Your task to perform on an android device: Go to ESPN.com Image 0: 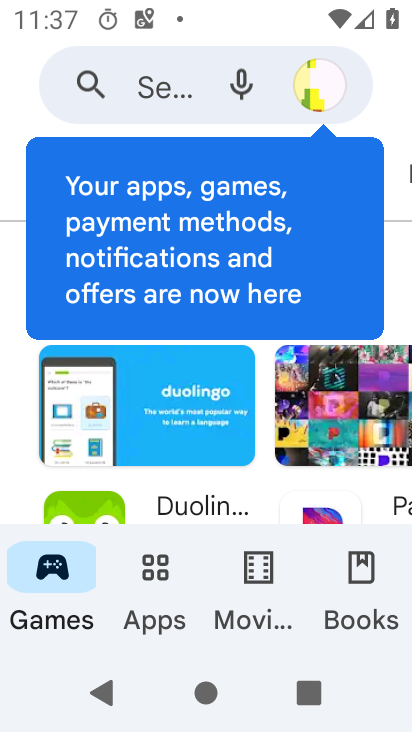
Step 0: press home button
Your task to perform on an android device: Go to ESPN.com Image 1: 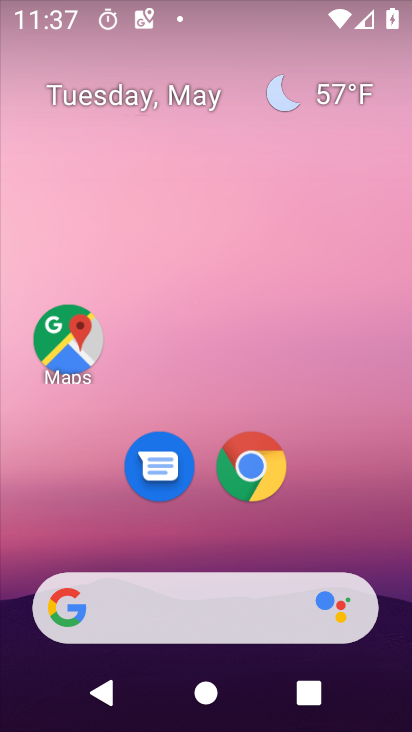
Step 1: click (251, 469)
Your task to perform on an android device: Go to ESPN.com Image 2: 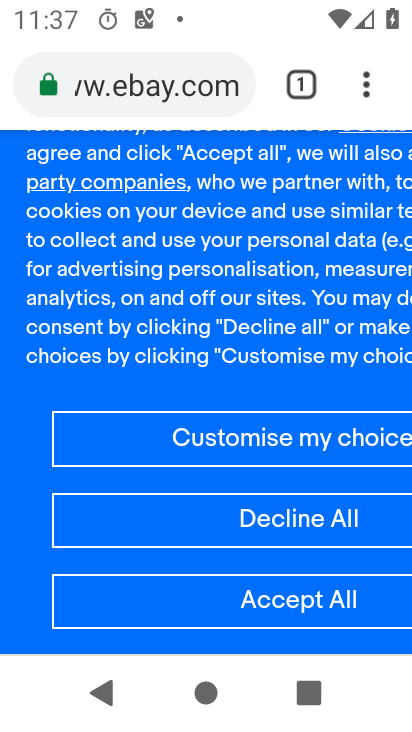
Step 2: click (305, 81)
Your task to perform on an android device: Go to ESPN.com Image 3: 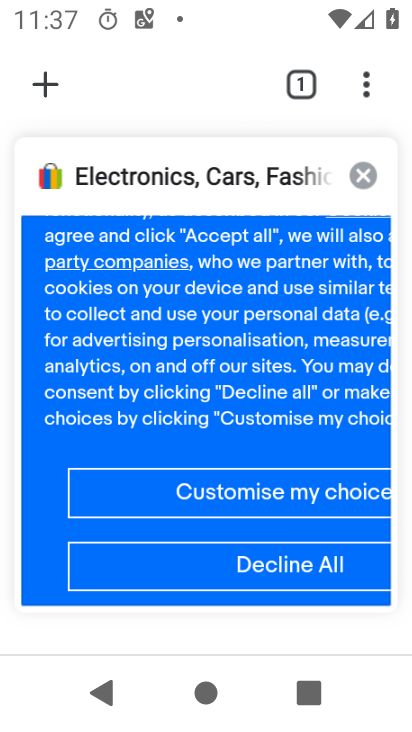
Step 3: click (369, 173)
Your task to perform on an android device: Go to ESPN.com Image 4: 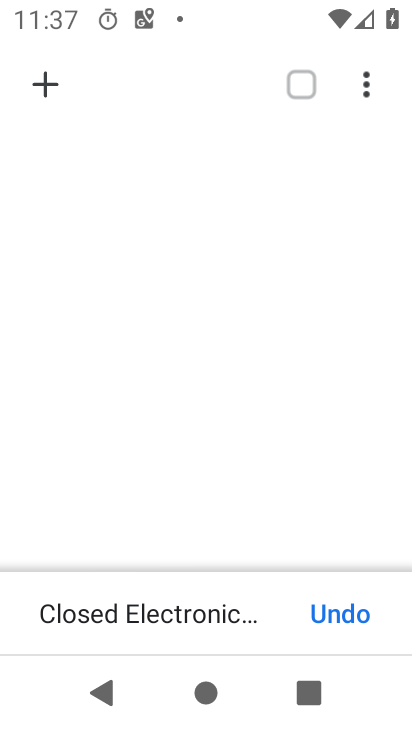
Step 4: click (43, 87)
Your task to perform on an android device: Go to ESPN.com Image 5: 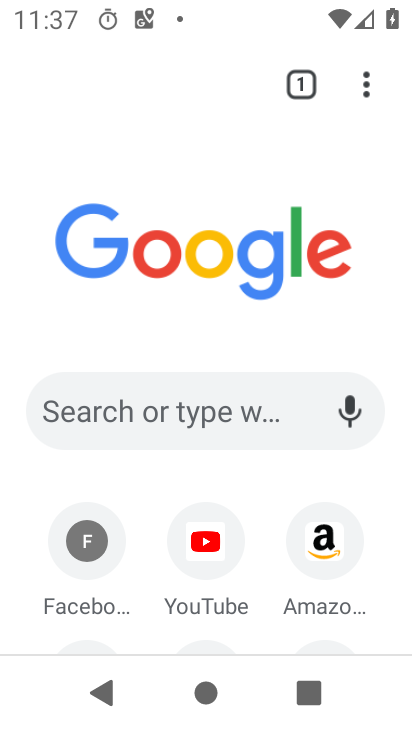
Step 5: drag from (246, 626) to (234, 316)
Your task to perform on an android device: Go to ESPN.com Image 6: 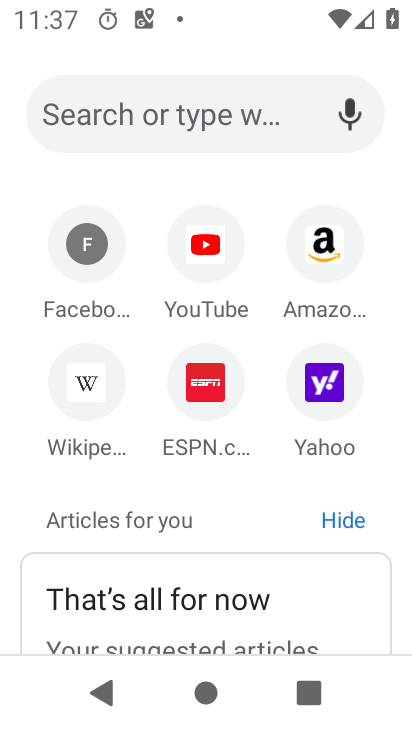
Step 6: click (196, 394)
Your task to perform on an android device: Go to ESPN.com Image 7: 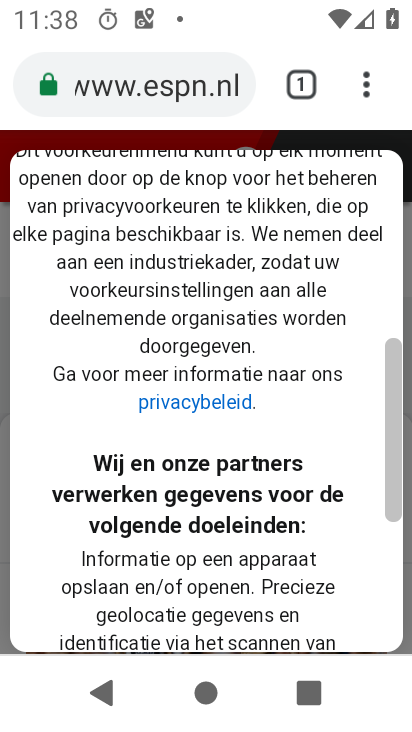
Step 7: task complete